Your task to perform on an android device: turn off picture-in-picture Image 0: 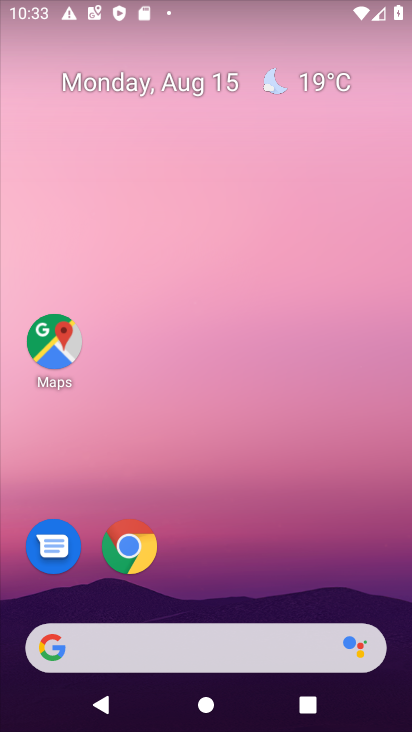
Step 0: drag from (229, 613) to (199, 95)
Your task to perform on an android device: turn off picture-in-picture Image 1: 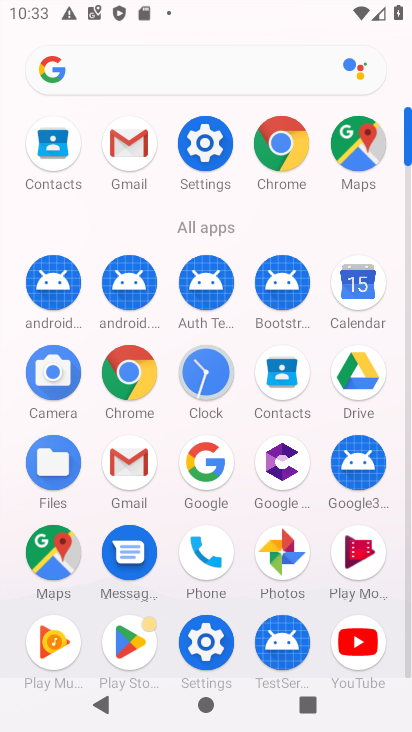
Step 1: click (196, 137)
Your task to perform on an android device: turn off picture-in-picture Image 2: 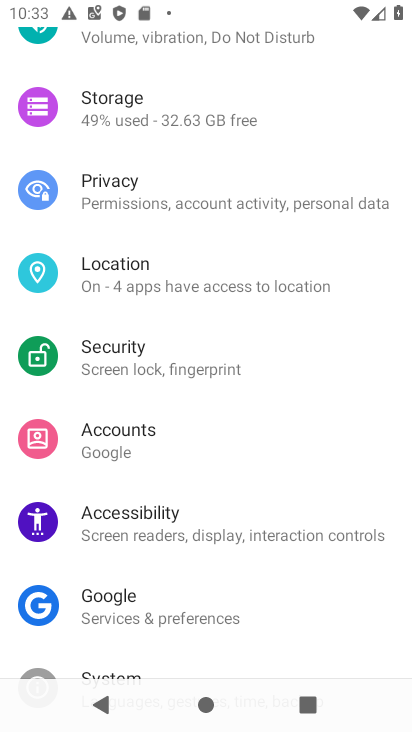
Step 2: drag from (113, 175) to (152, 680)
Your task to perform on an android device: turn off picture-in-picture Image 3: 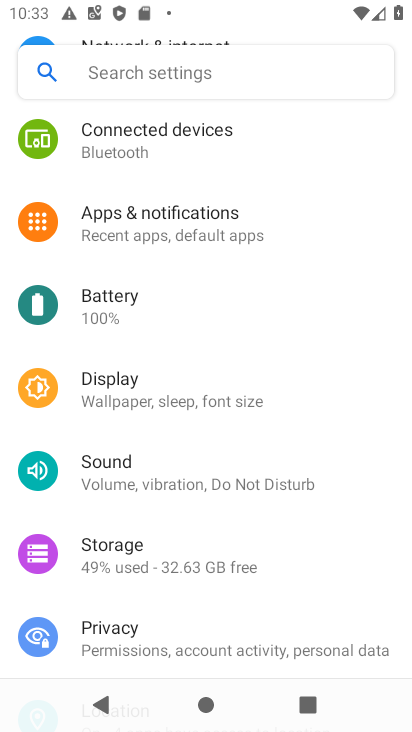
Step 3: click (171, 231)
Your task to perform on an android device: turn off picture-in-picture Image 4: 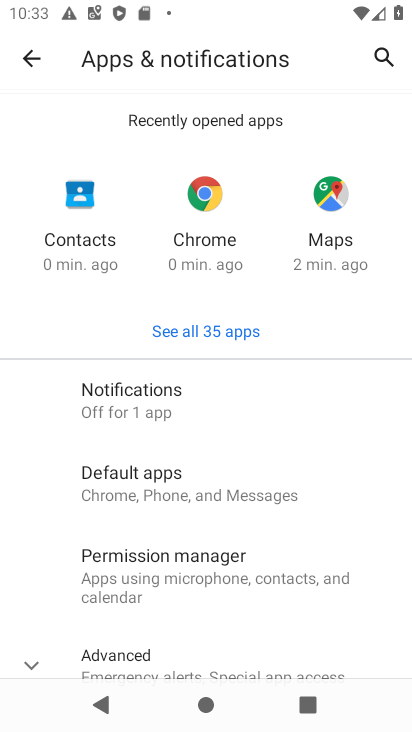
Step 4: drag from (143, 494) to (130, 316)
Your task to perform on an android device: turn off picture-in-picture Image 5: 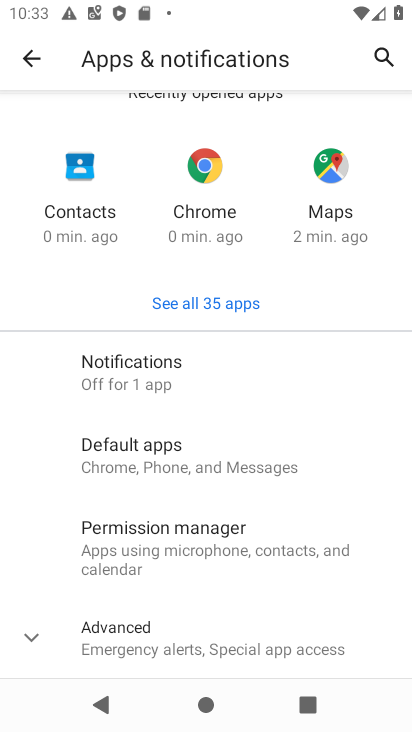
Step 5: click (147, 646)
Your task to perform on an android device: turn off picture-in-picture Image 6: 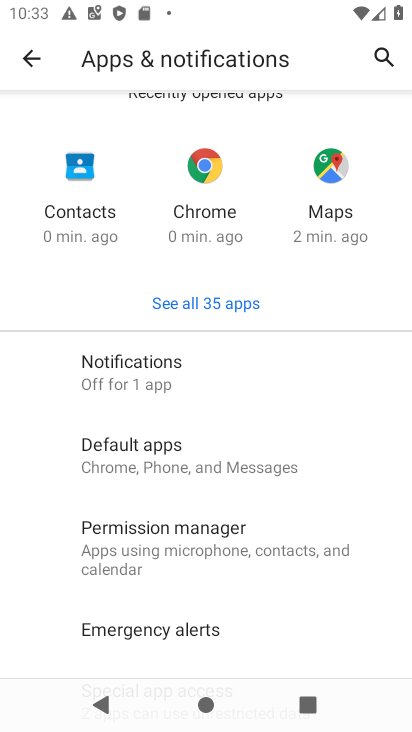
Step 6: drag from (142, 655) to (125, 296)
Your task to perform on an android device: turn off picture-in-picture Image 7: 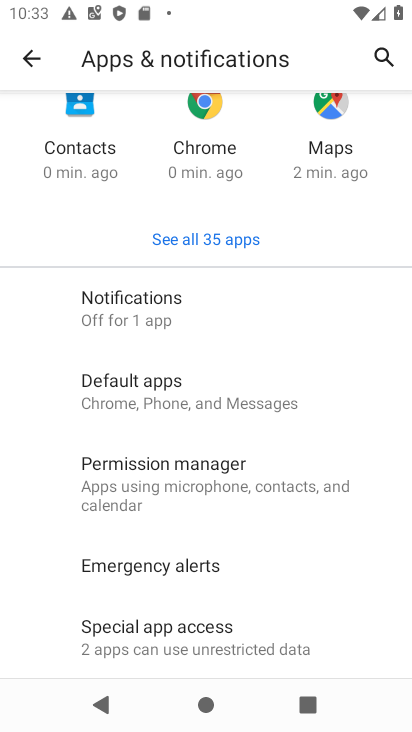
Step 7: click (175, 642)
Your task to perform on an android device: turn off picture-in-picture Image 8: 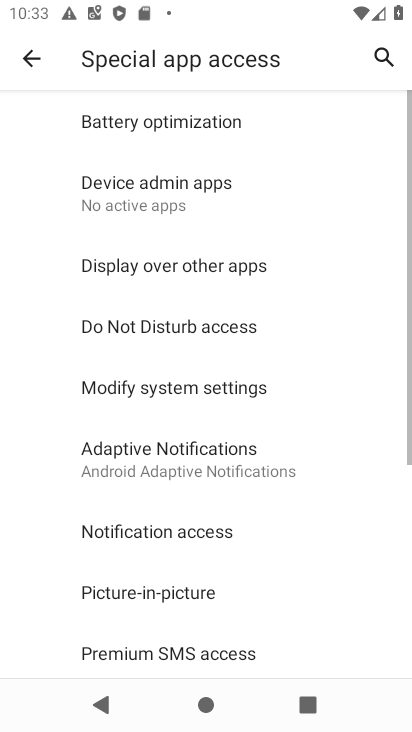
Step 8: click (165, 591)
Your task to perform on an android device: turn off picture-in-picture Image 9: 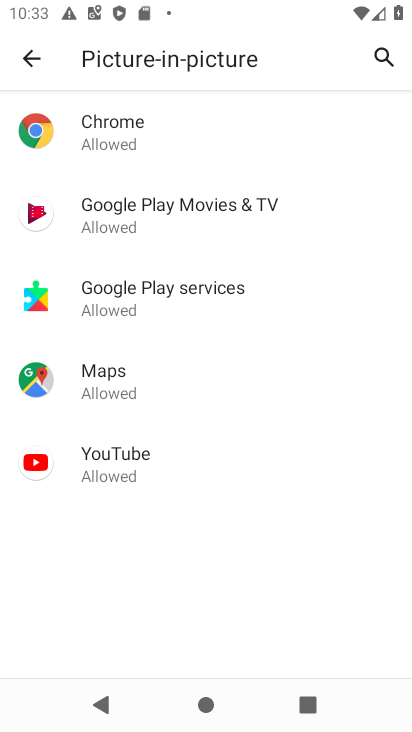
Step 9: click (115, 447)
Your task to perform on an android device: turn off picture-in-picture Image 10: 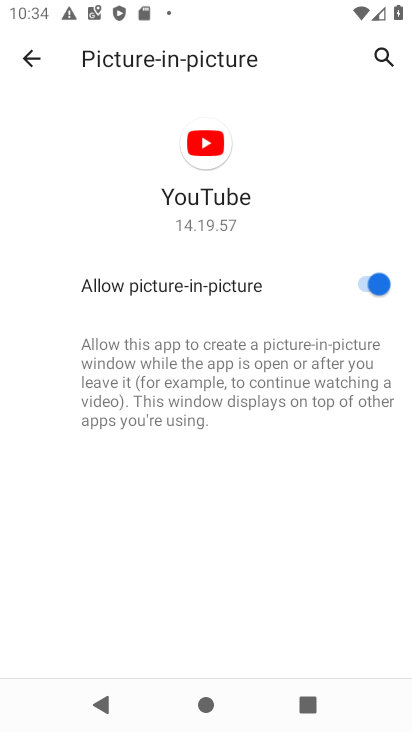
Step 10: click (369, 274)
Your task to perform on an android device: turn off picture-in-picture Image 11: 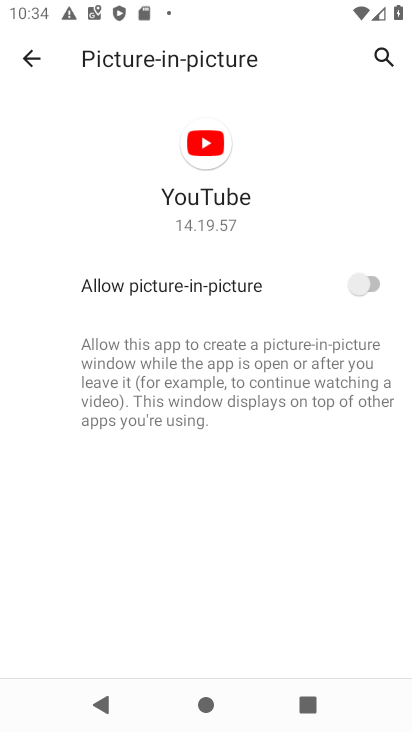
Step 11: task complete